Your task to perform on an android device: turn pop-ups off in chrome Image 0: 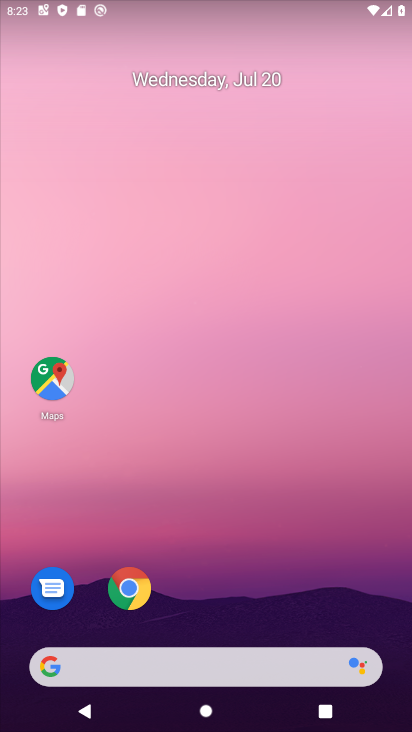
Step 0: click (138, 598)
Your task to perform on an android device: turn pop-ups off in chrome Image 1: 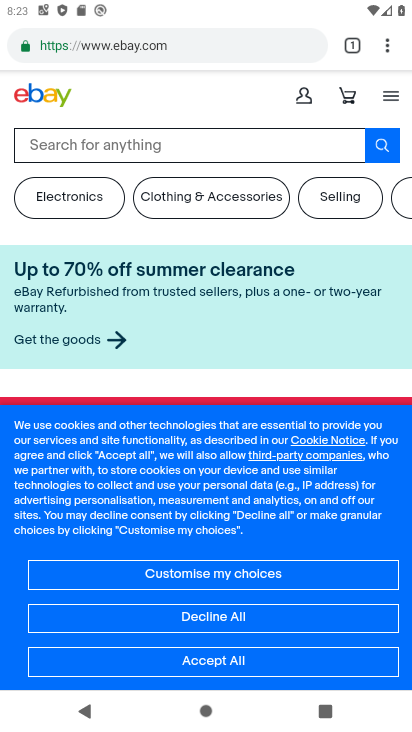
Step 1: click (395, 43)
Your task to perform on an android device: turn pop-ups off in chrome Image 2: 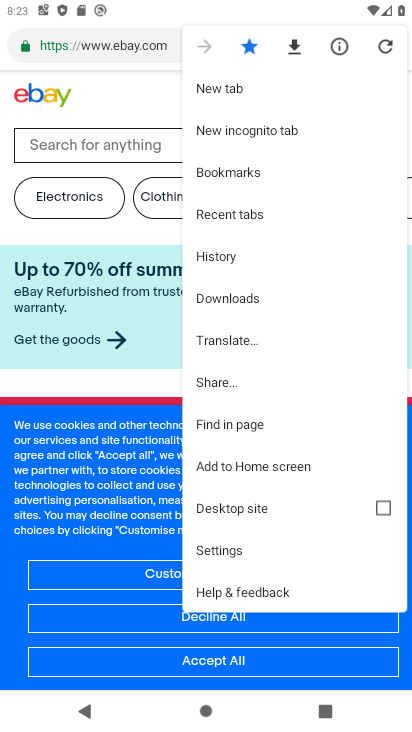
Step 2: click (240, 538)
Your task to perform on an android device: turn pop-ups off in chrome Image 3: 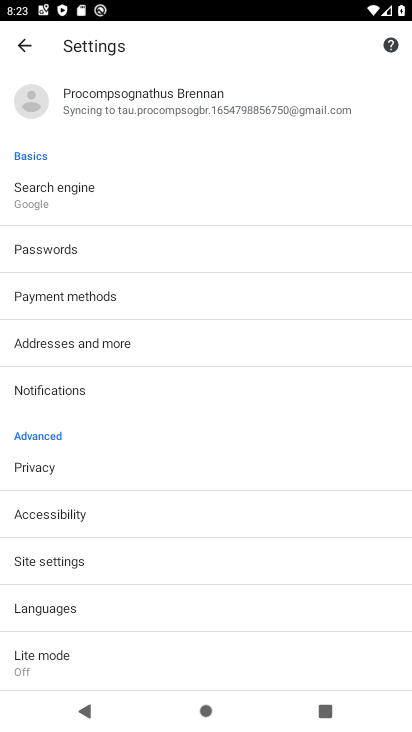
Step 3: drag from (160, 614) to (291, 98)
Your task to perform on an android device: turn pop-ups off in chrome Image 4: 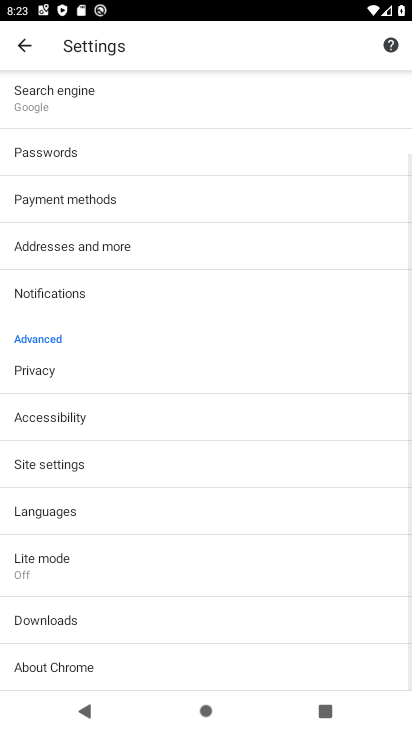
Step 4: drag from (95, 640) to (165, 199)
Your task to perform on an android device: turn pop-ups off in chrome Image 5: 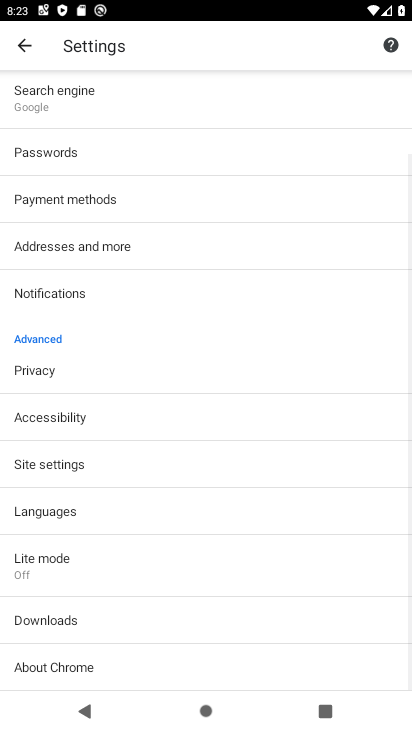
Step 5: click (106, 454)
Your task to perform on an android device: turn pop-ups off in chrome Image 6: 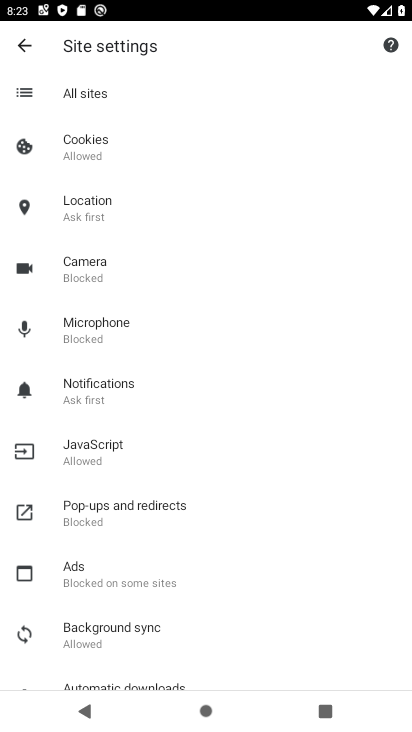
Step 6: click (124, 525)
Your task to perform on an android device: turn pop-ups off in chrome Image 7: 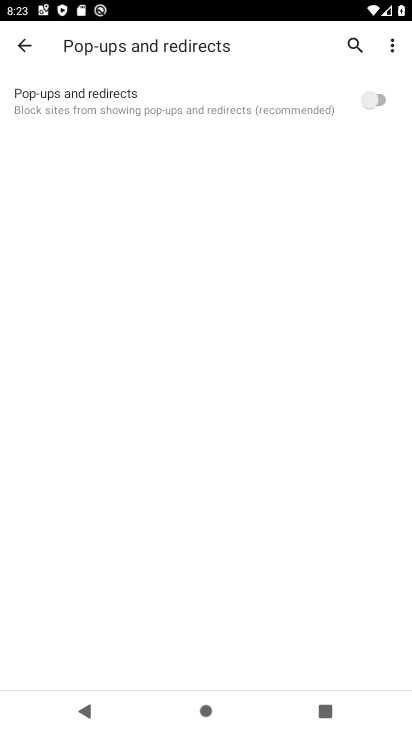
Step 7: task complete